Your task to perform on an android device: install app "Calculator" Image 0: 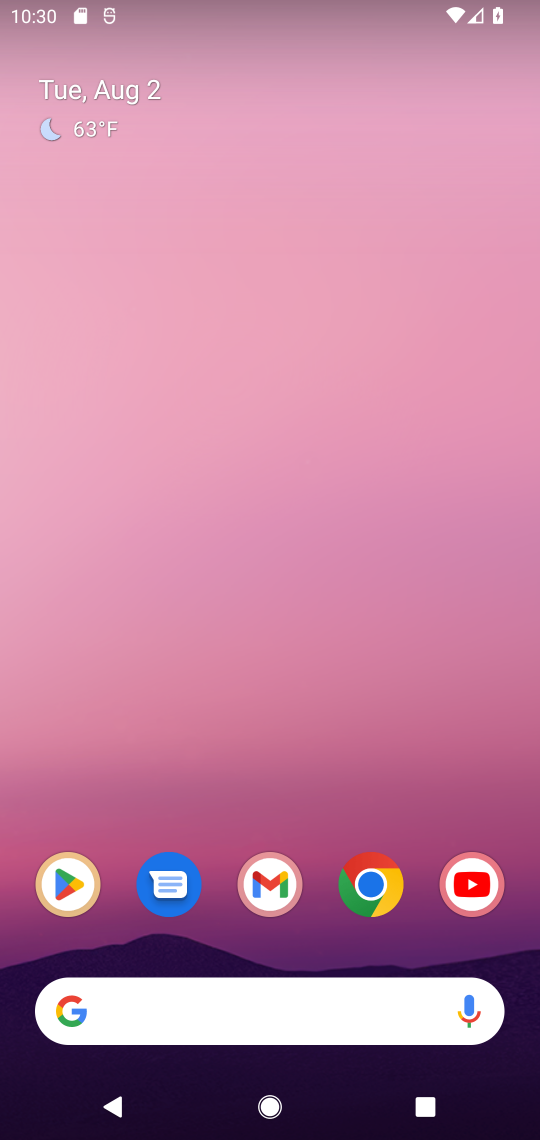
Step 0: click (76, 885)
Your task to perform on an android device: install app "Calculator" Image 1: 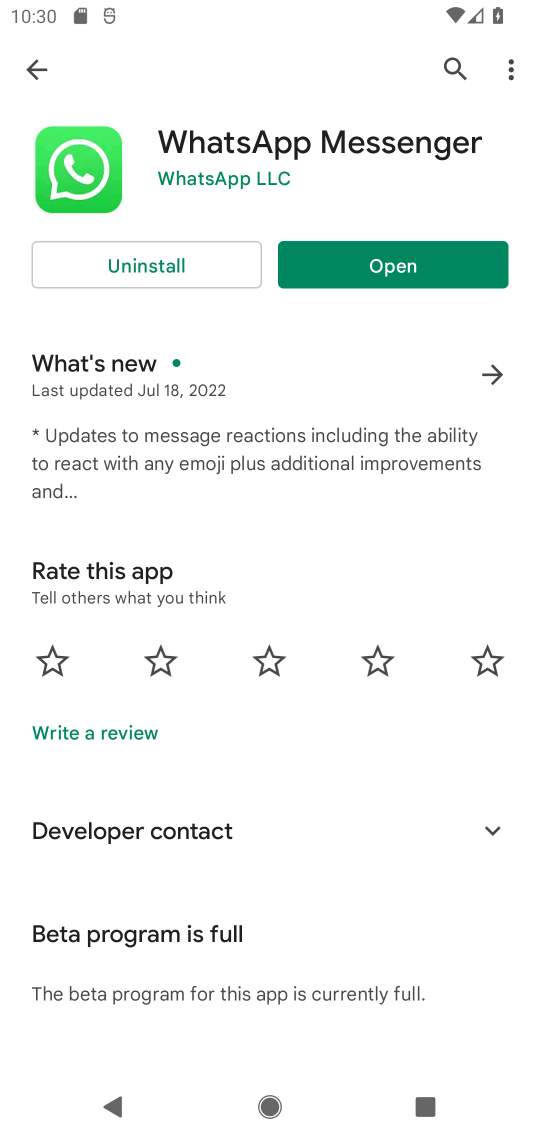
Step 1: click (41, 68)
Your task to perform on an android device: install app "Calculator" Image 2: 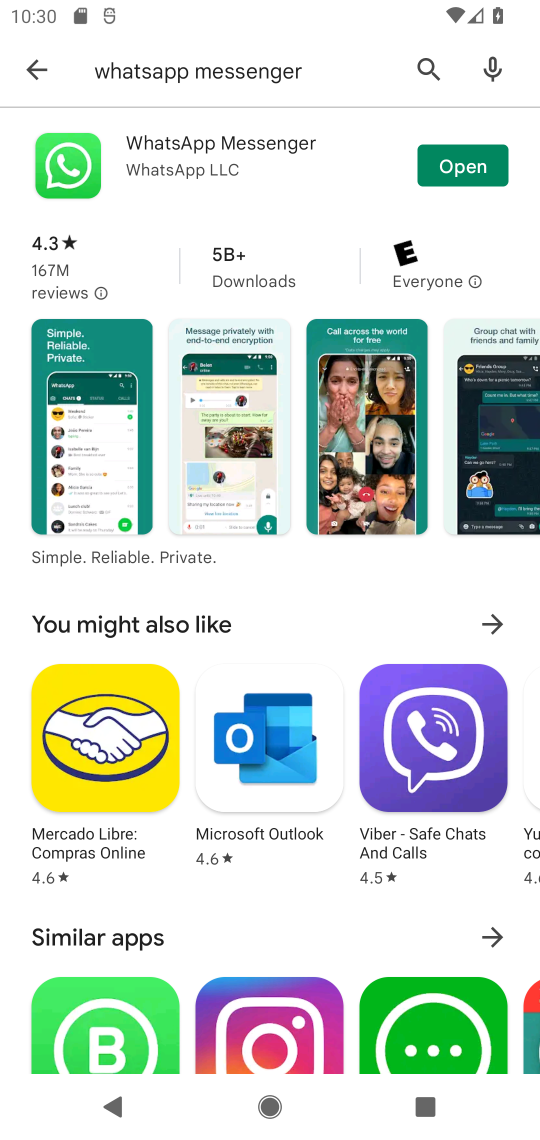
Step 2: click (237, 75)
Your task to perform on an android device: install app "Calculator" Image 3: 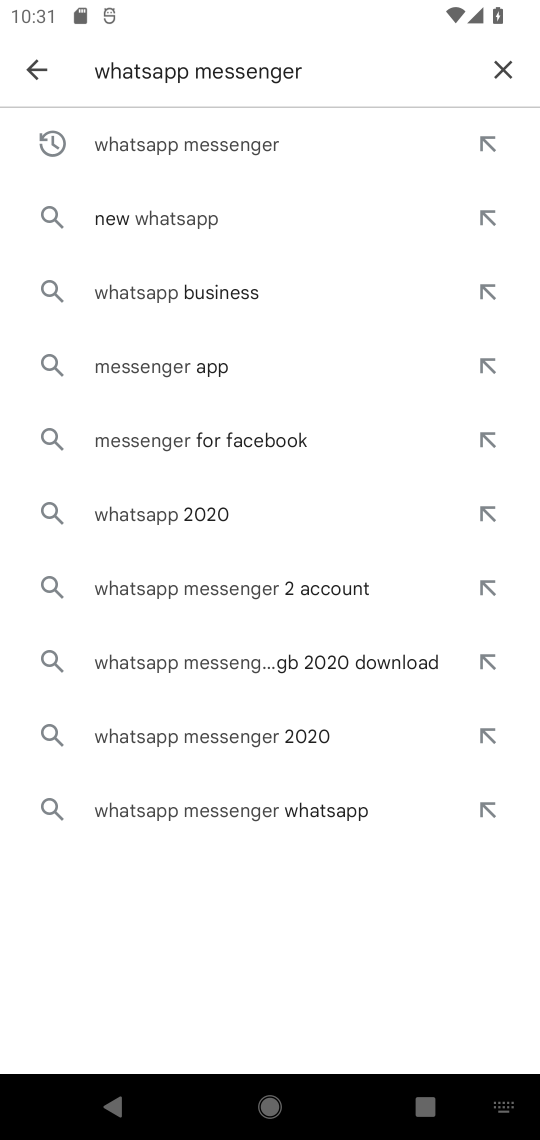
Step 3: click (502, 56)
Your task to perform on an android device: install app "Calculator" Image 4: 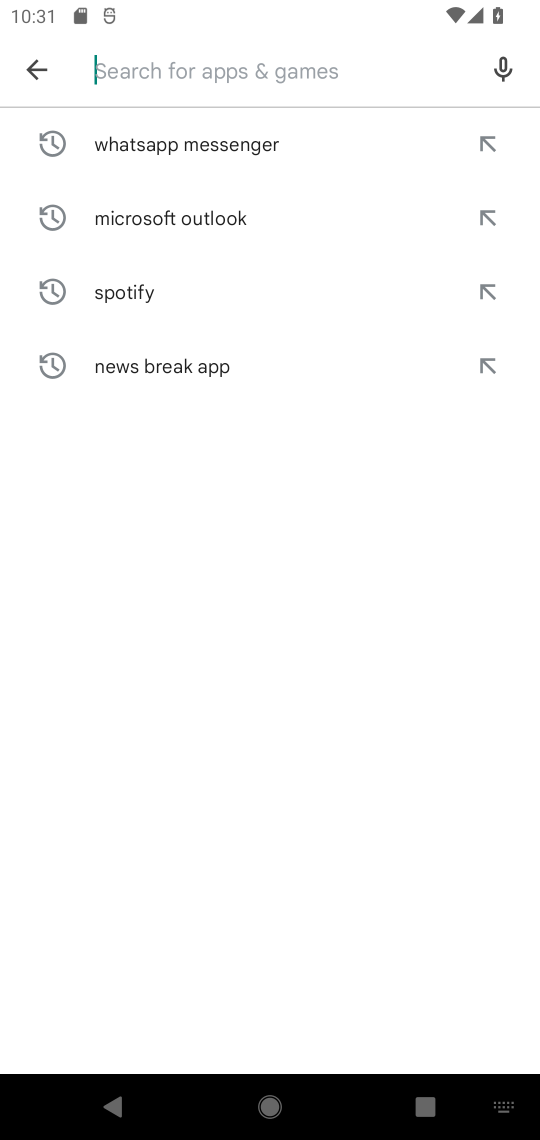
Step 4: type "calculator"
Your task to perform on an android device: install app "Calculator" Image 5: 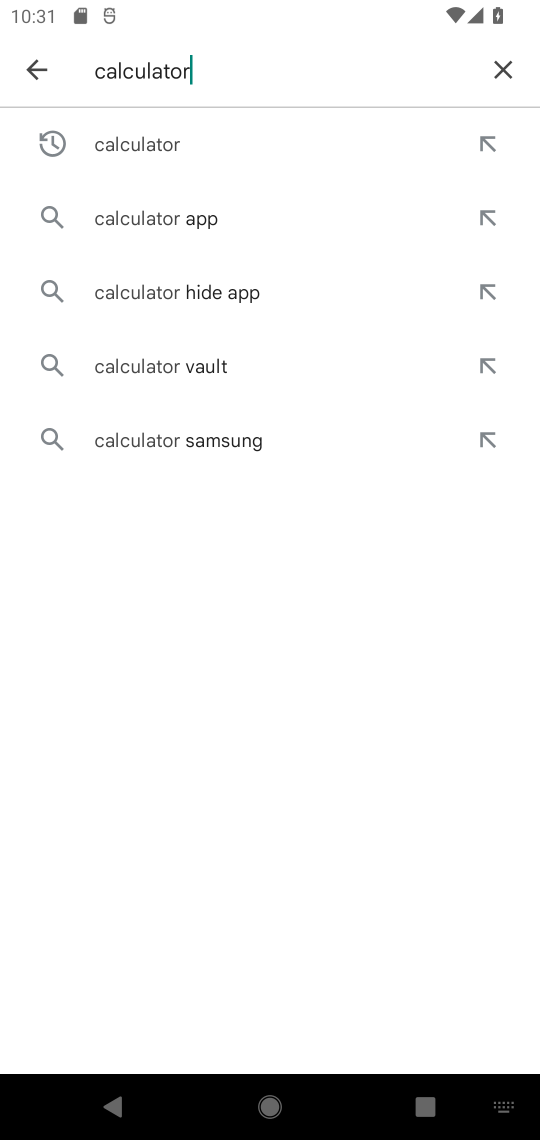
Step 5: click (160, 143)
Your task to perform on an android device: install app "Calculator" Image 6: 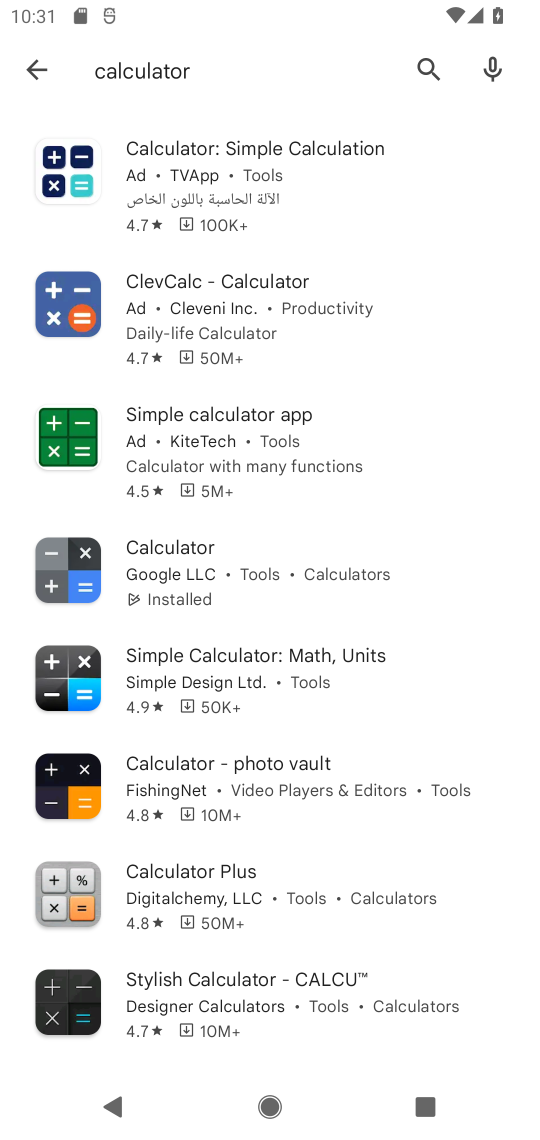
Step 6: click (123, 556)
Your task to perform on an android device: install app "Calculator" Image 7: 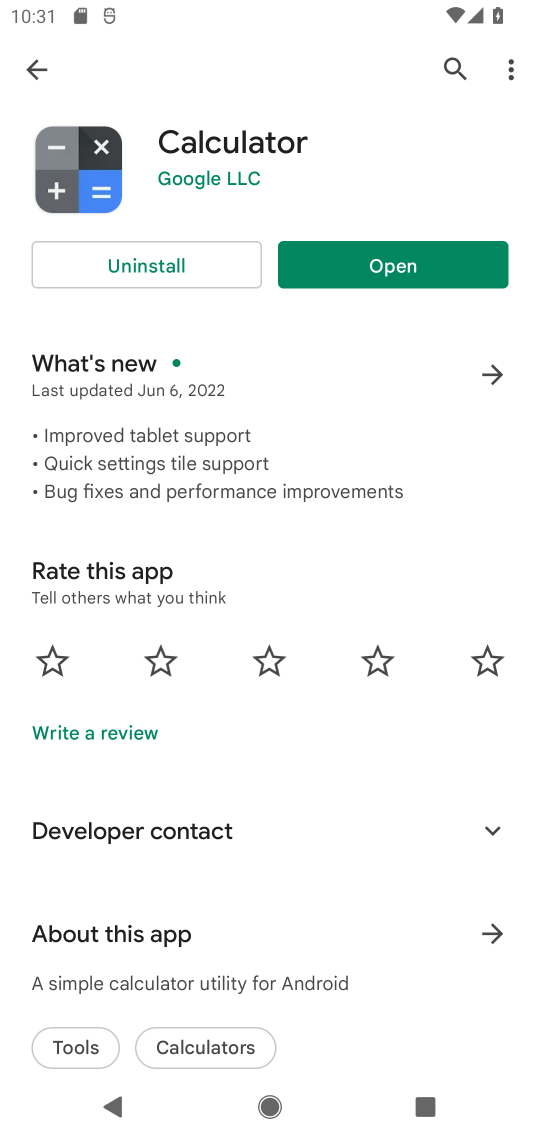
Step 7: task complete